Your task to perform on an android device: Do I have any events tomorrow? Image 0: 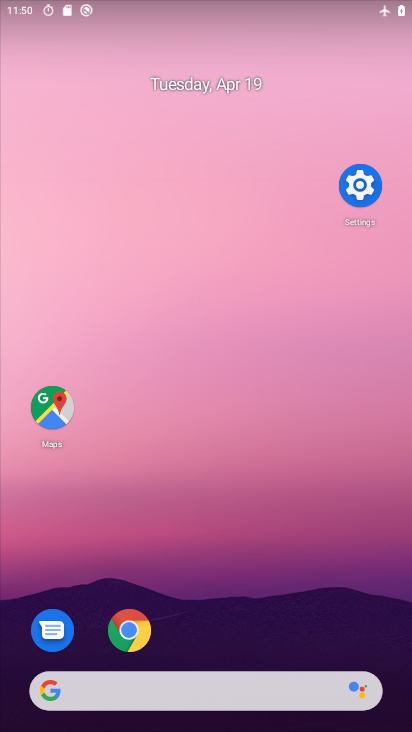
Step 0: drag from (294, 552) to (285, 129)
Your task to perform on an android device: Do I have any events tomorrow? Image 1: 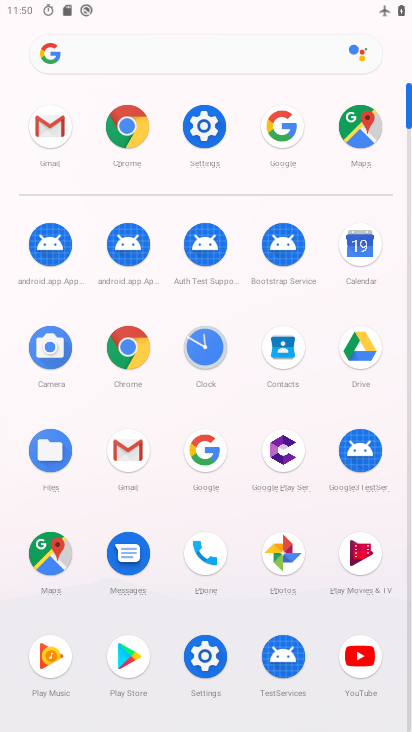
Step 1: click (358, 242)
Your task to perform on an android device: Do I have any events tomorrow? Image 2: 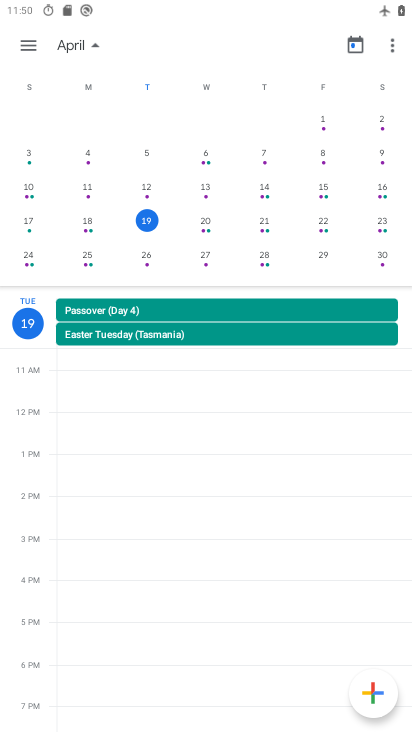
Step 2: click (219, 225)
Your task to perform on an android device: Do I have any events tomorrow? Image 3: 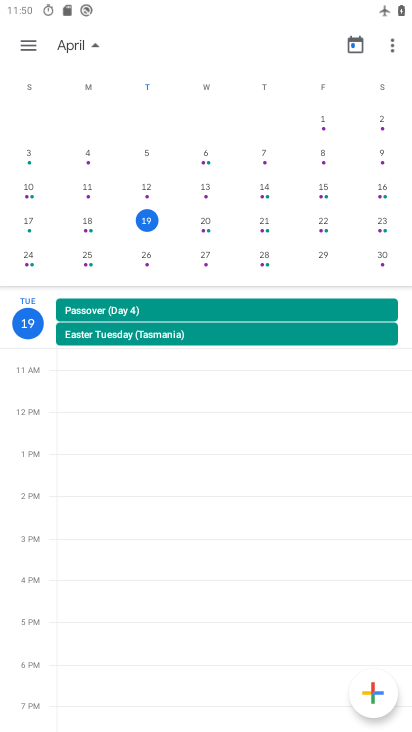
Step 3: click (211, 229)
Your task to perform on an android device: Do I have any events tomorrow? Image 4: 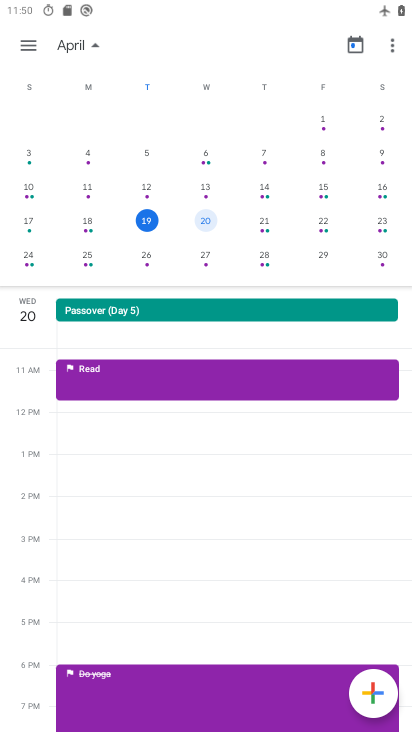
Step 4: task complete